Your task to perform on an android device: toggle airplane mode Image 0: 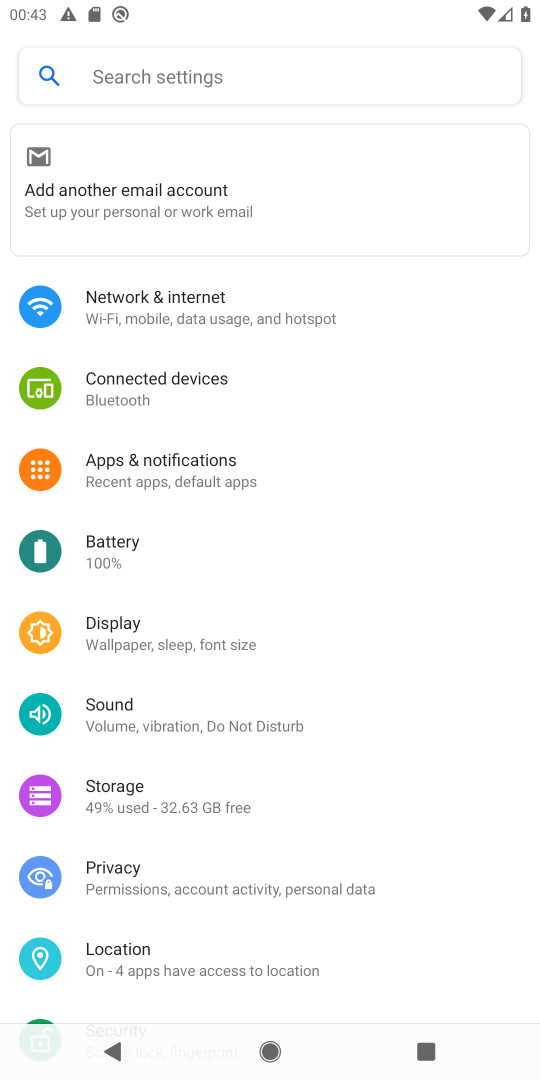
Step 0: click (406, 320)
Your task to perform on an android device: toggle airplane mode Image 1: 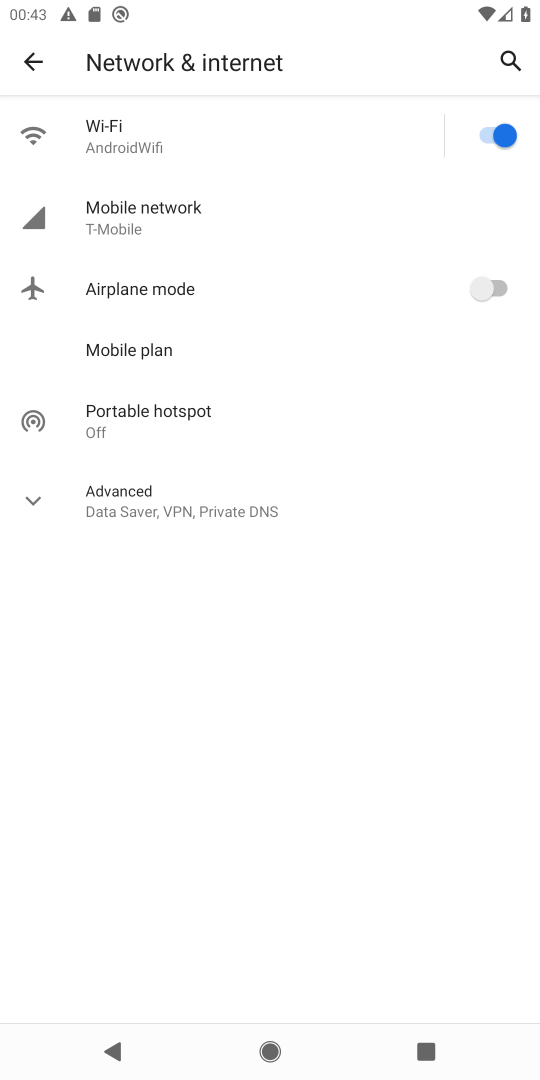
Step 1: click (484, 302)
Your task to perform on an android device: toggle airplane mode Image 2: 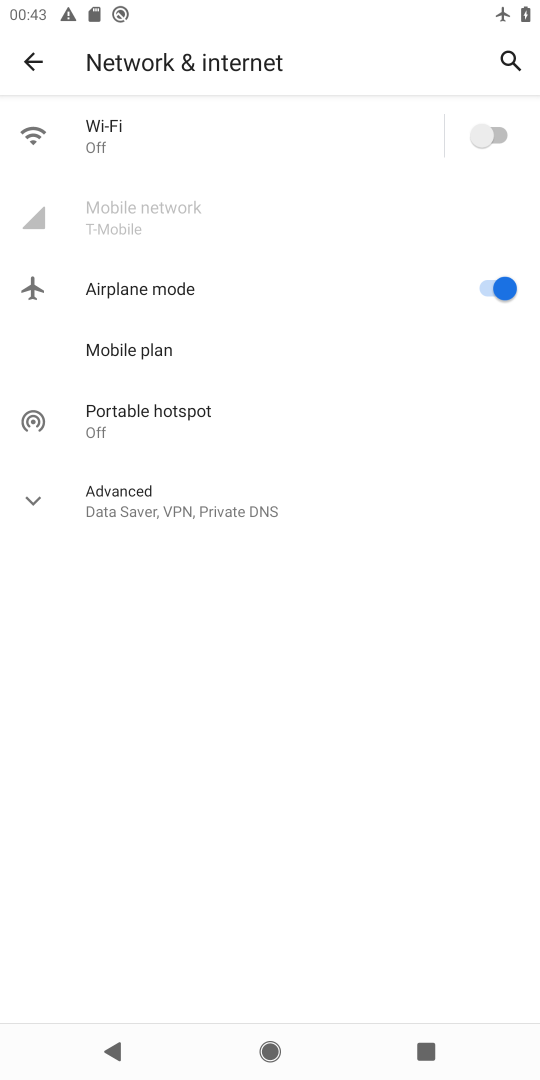
Step 2: task complete